Your task to perform on an android device: turn on improve location accuracy Image 0: 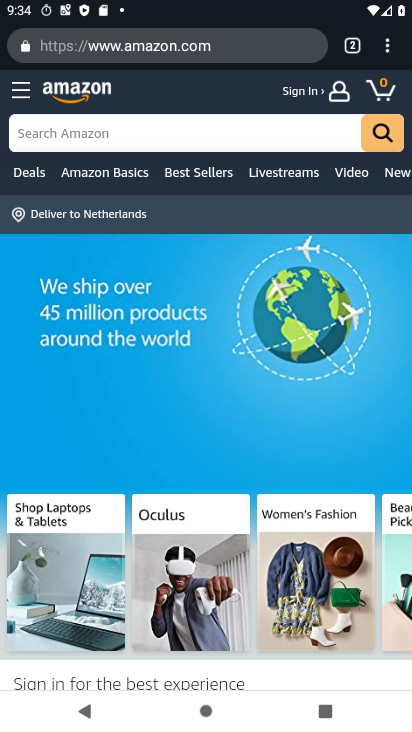
Step 0: press home button
Your task to perform on an android device: turn on improve location accuracy Image 1: 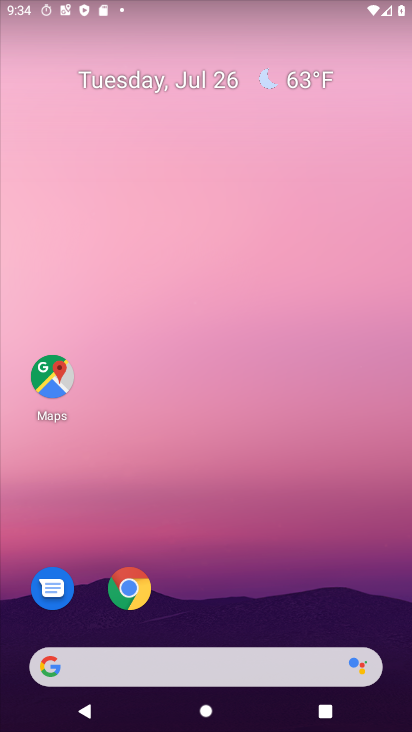
Step 1: drag from (196, 613) to (206, 139)
Your task to perform on an android device: turn on improve location accuracy Image 2: 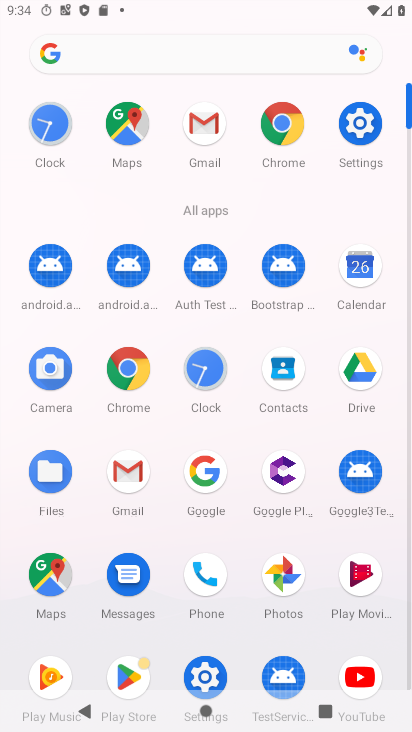
Step 2: click (345, 130)
Your task to perform on an android device: turn on improve location accuracy Image 3: 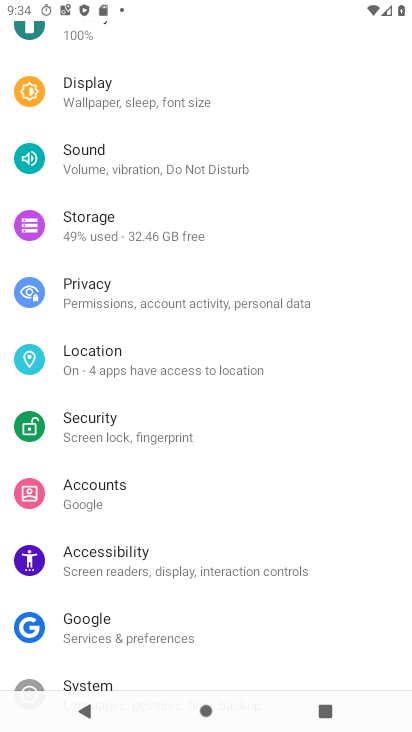
Step 3: click (100, 348)
Your task to perform on an android device: turn on improve location accuracy Image 4: 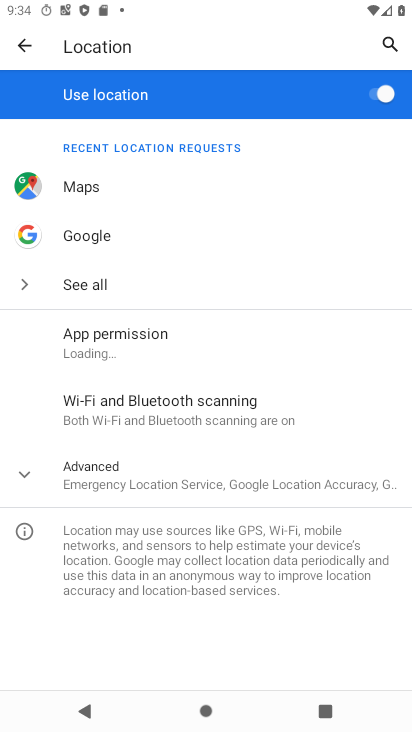
Step 4: click (121, 473)
Your task to perform on an android device: turn on improve location accuracy Image 5: 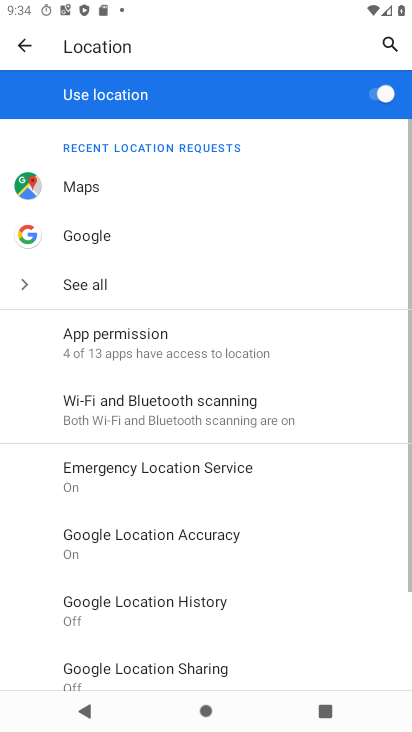
Step 5: task complete